Your task to perform on an android device: turn off notifications settings in the gmail app Image 0: 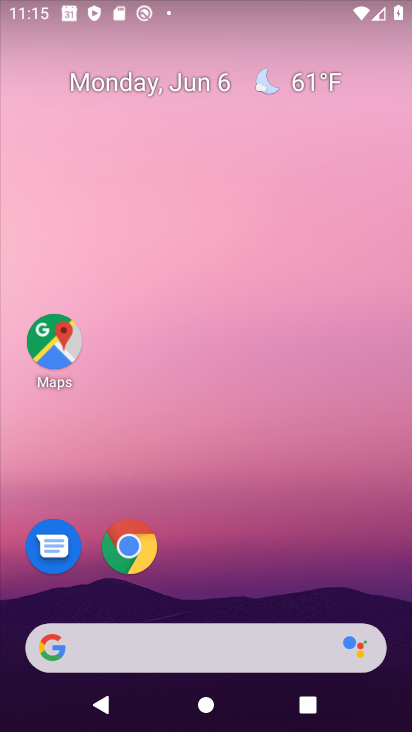
Step 0: click (167, 637)
Your task to perform on an android device: turn off notifications settings in the gmail app Image 1: 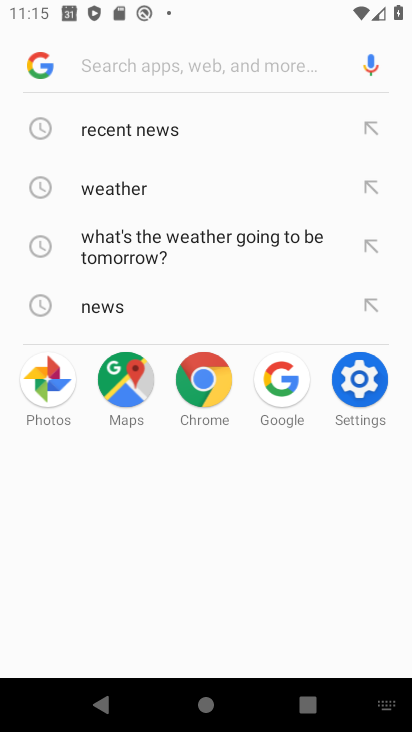
Step 1: press back button
Your task to perform on an android device: turn off notifications settings in the gmail app Image 2: 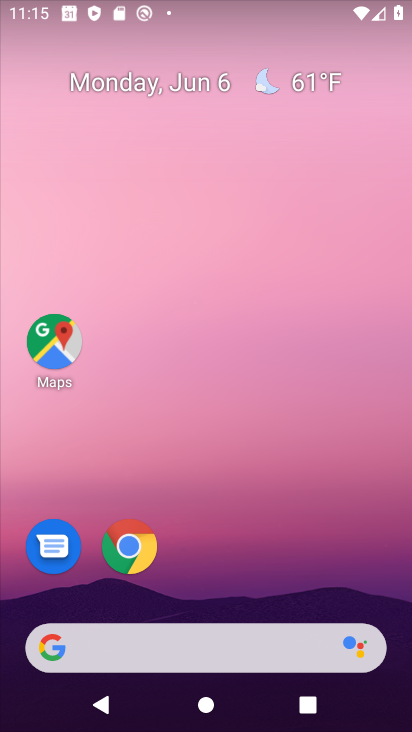
Step 2: drag from (229, 550) to (292, 75)
Your task to perform on an android device: turn off notifications settings in the gmail app Image 3: 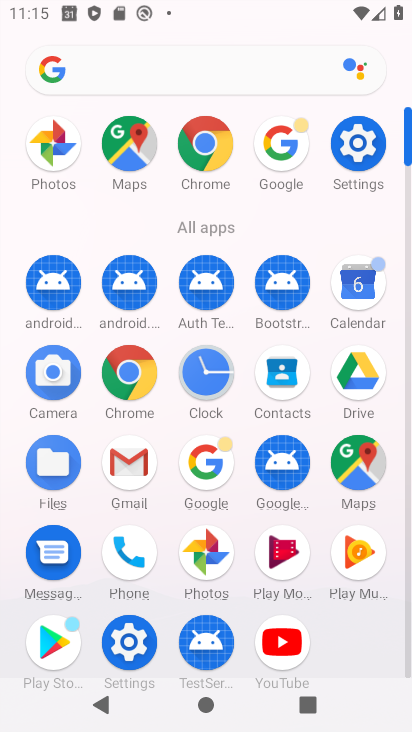
Step 3: click (121, 472)
Your task to perform on an android device: turn off notifications settings in the gmail app Image 4: 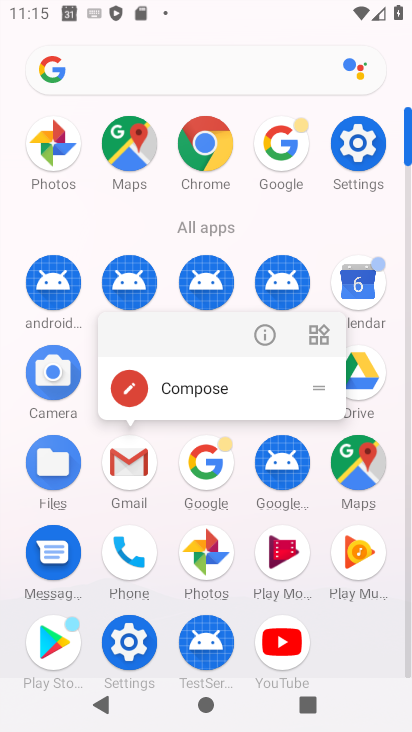
Step 4: click (266, 333)
Your task to perform on an android device: turn off notifications settings in the gmail app Image 5: 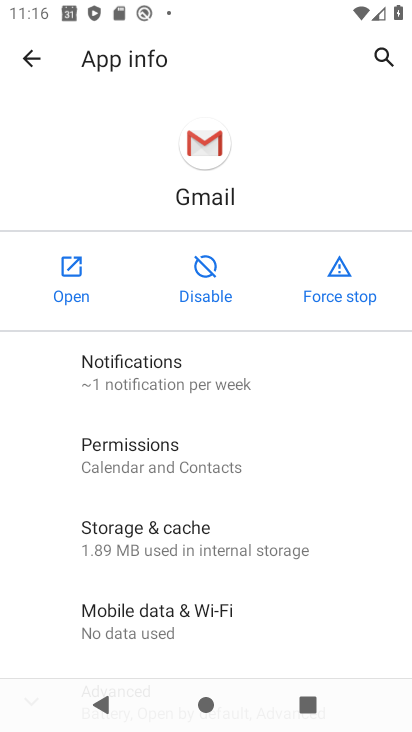
Step 5: click (174, 381)
Your task to perform on an android device: turn off notifications settings in the gmail app Image 6: 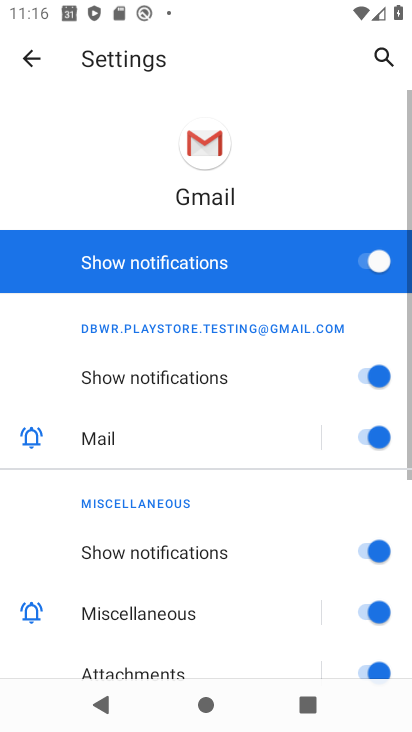
Step 6: click (378, 263)
Your task to perform on an android device: turn off notifications settings in the gmail app Image 7: 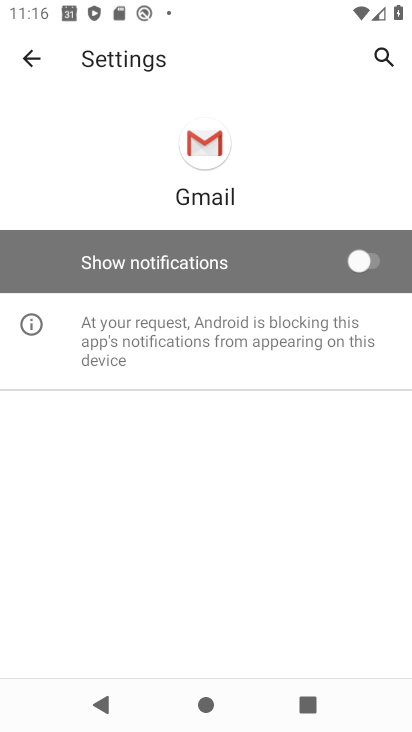
Step 7: task complete